Your task to perform on an android device: Find coffee shops on Maps Image 0: 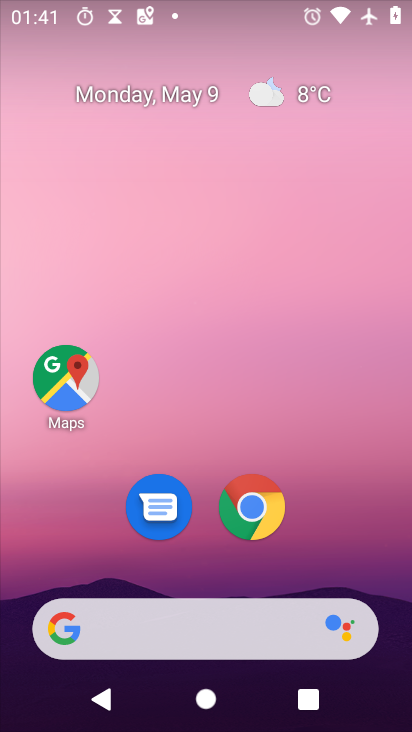
Step 0: drag from (230, 725) to (228, 13)
Your task to perform on an android device: Find coffee shops on Maps Image 1: 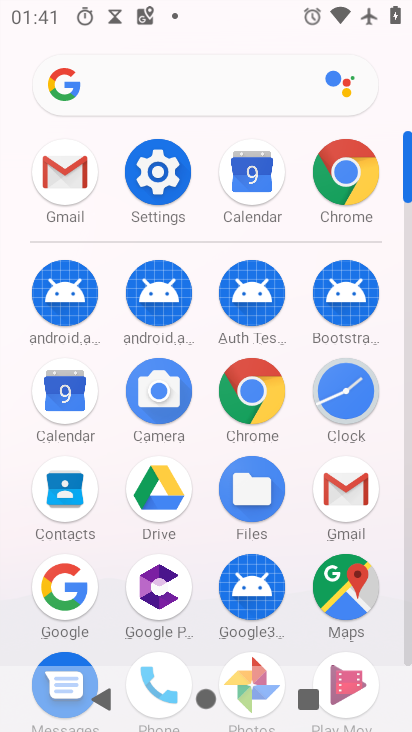
Step 1: click (336, 582)
Your task to perform on an android device: Find coffee shops on Maps Image 2: 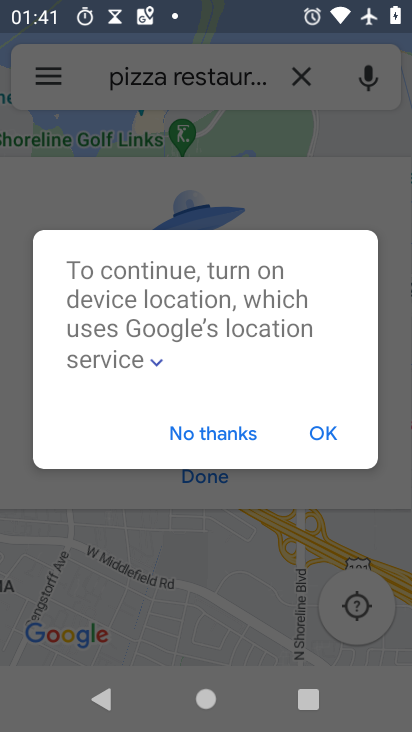
Step 2: click (316, 423)
Your task to perform on an android device: Find coffee shops on Maps Image 3: 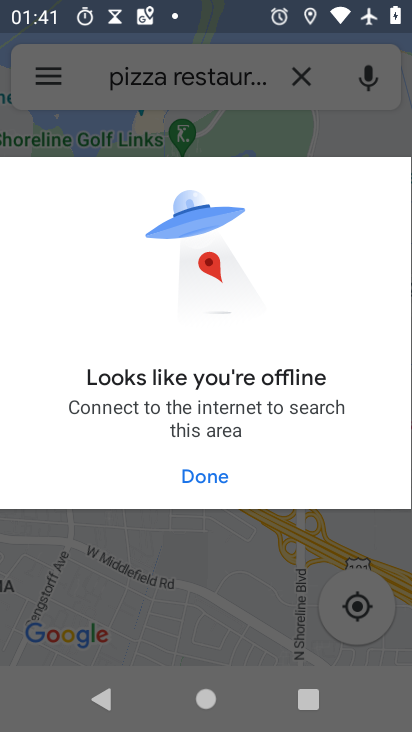
Step 3: click (207, 470)
Your task to perform on an android device: Find coffee shops on Maps Image 4: 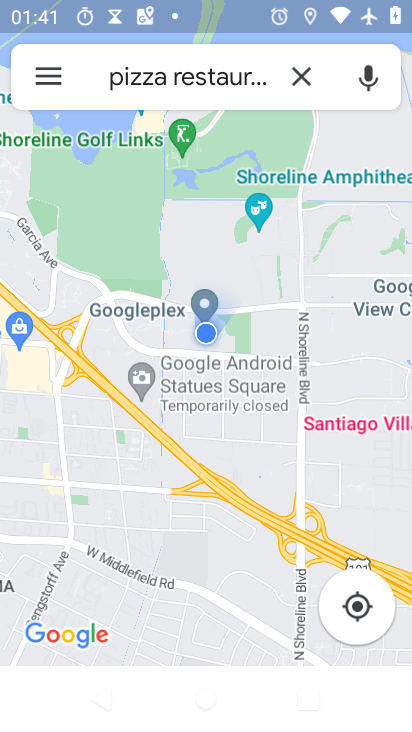
Step 4: click (295, 70)
Your task to perform on an android device: Find coffee shops on Maps Image 5: 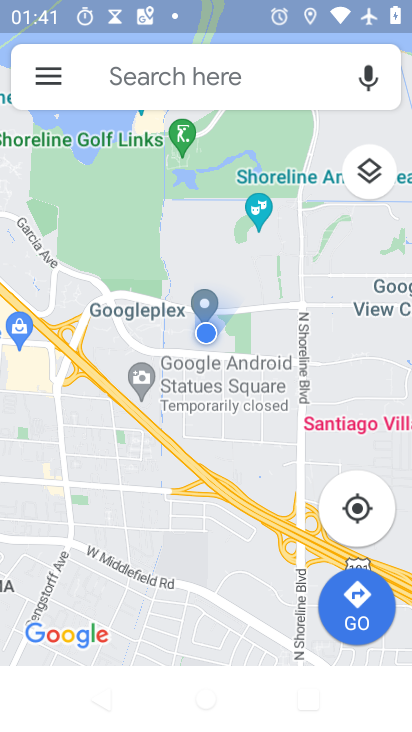
Step 5: click (211, 65)
Your task to perform on an android device: Find coffee shops on Maps Image 6: 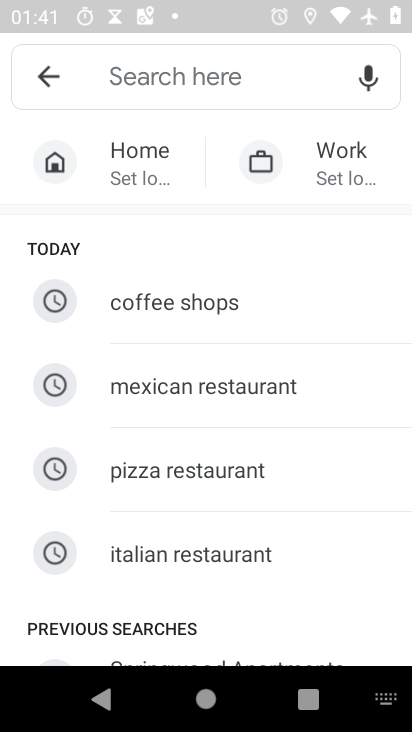
Step 6: type "coffee shops"
Your task to perform on an android device: Find coffee shops on Maps Image 7: 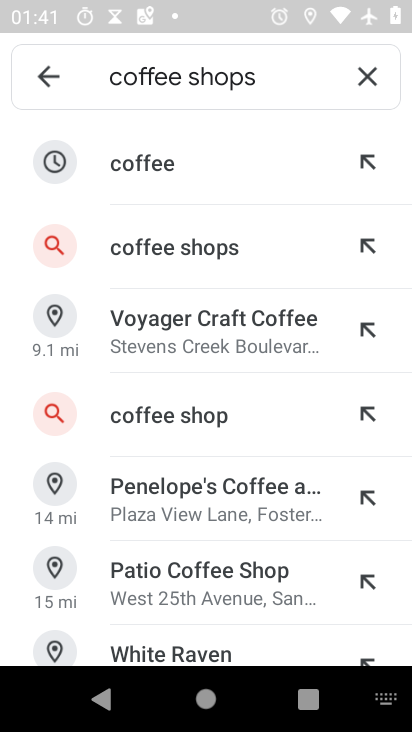
Step 7: click (157, 246)
Your task to perform on an android device: Find coffee shops on Maps Image 8: 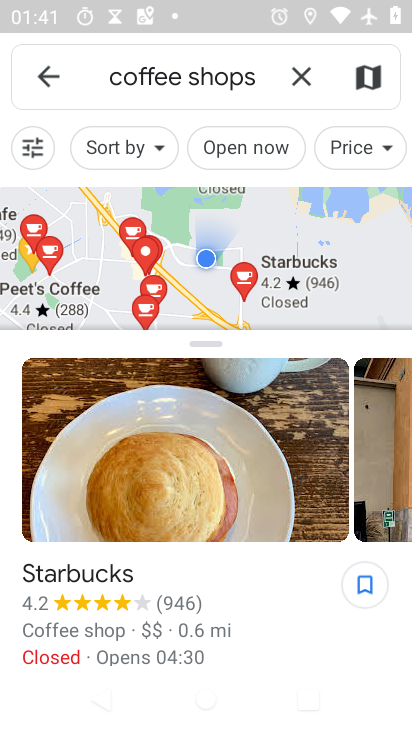
Step 8: task complete